Your task to perform on an android device: See recent photos Image 0: 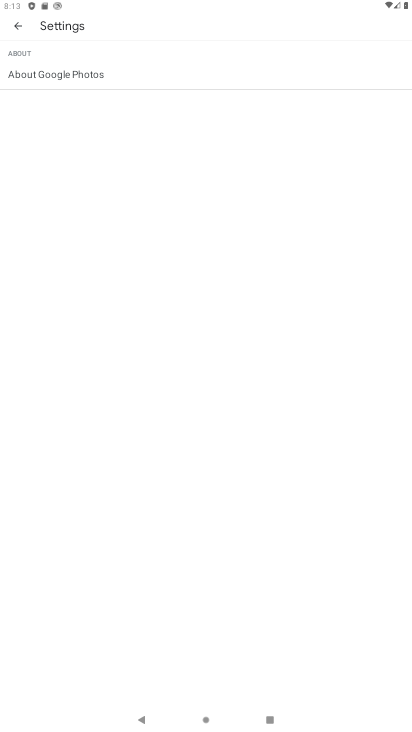
Step 0: press home button
Your task to perform on an android device: See recent photos Image 1: 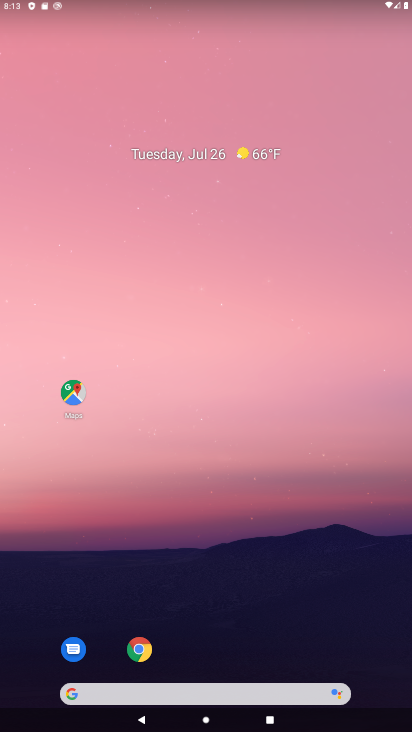
Step 1: drag from (200, 725) to (214, 306)
Your task to perform on an android device: See recent photos Image 2: 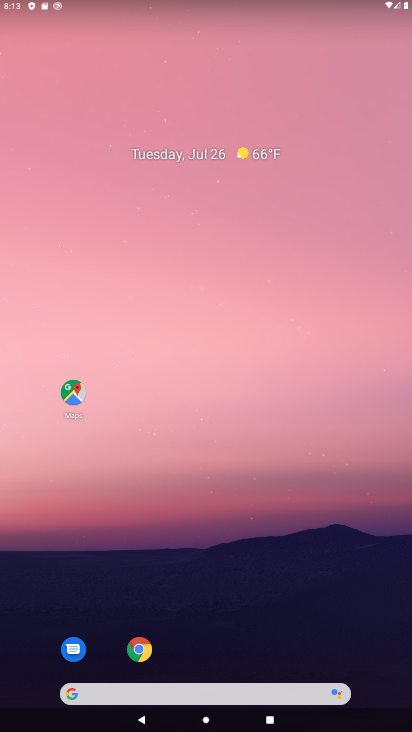
Step 2: drag from (239, 724) to (150, 23)
Your task to perform on an android device: See recent photos Image 3: 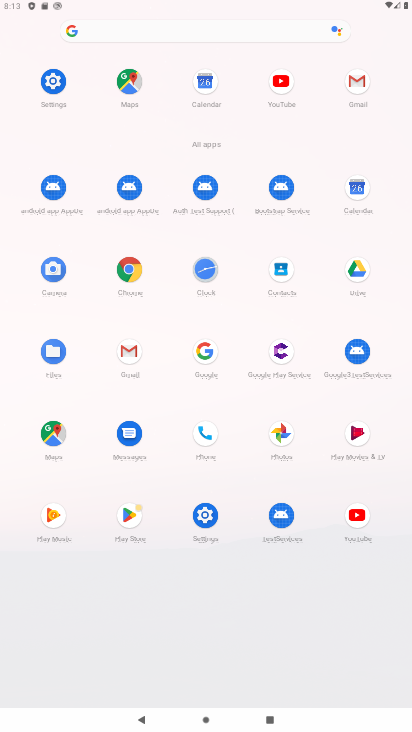
Step 3: click (274, 435)
Your task to perform on an android device: See recent photos Image 4: 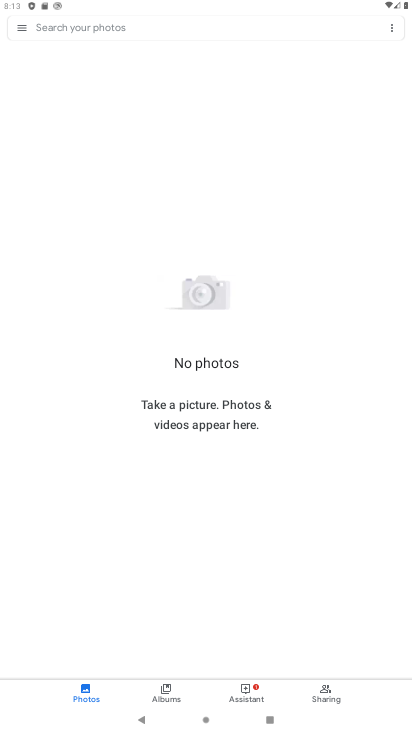
Step 4: click (86, 31)
Your task to perform on an android device: See recent photos Image 5: 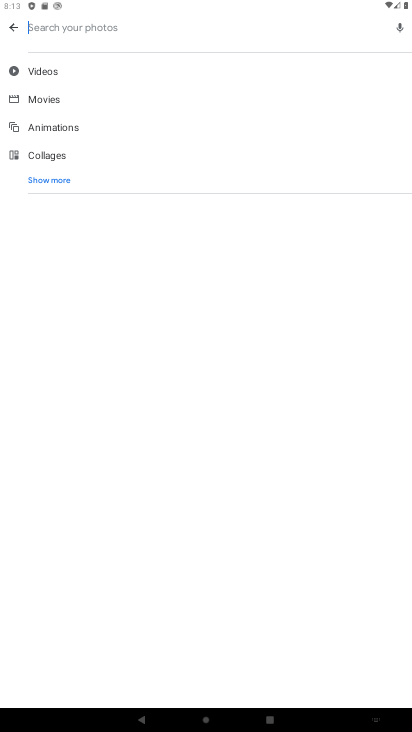
Step 5: task complete